Your task to perform on an android device: check android version Image 0: 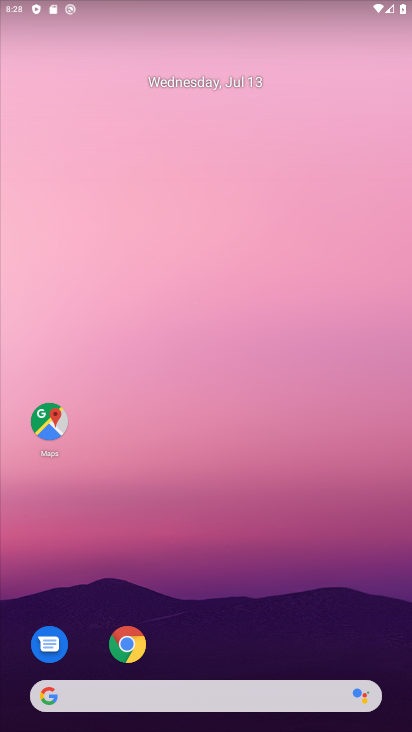
Step 0: drag from (241, 719) to (239, 195)
Your task to perform on an android device: check android version Image 1: 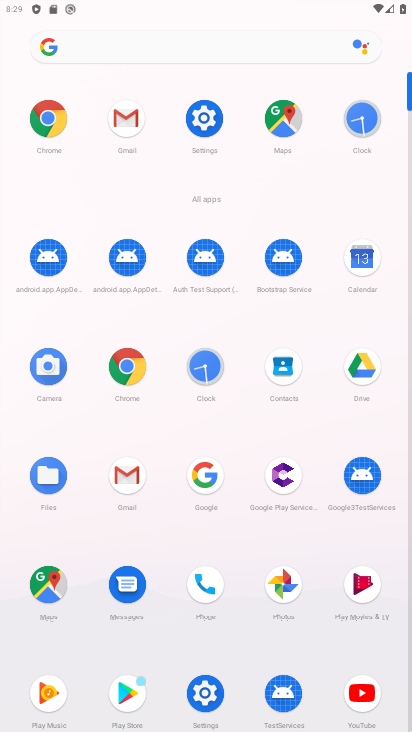
Step 1: click (213, 118)
Your task to perform on an android device: check android version Image 2: 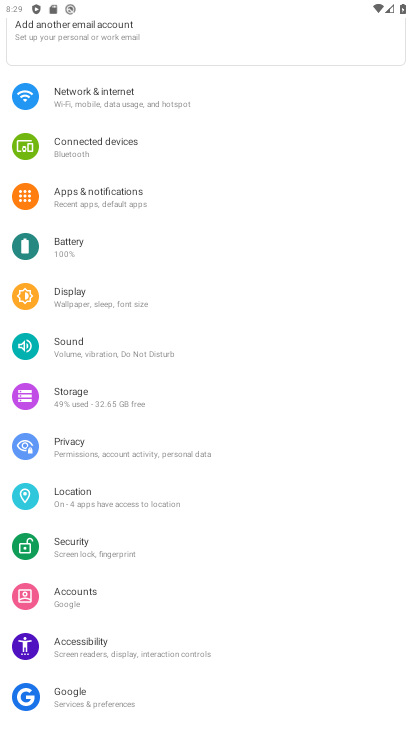
Step 2: drag from (151, 706) to (138, 289)
Your task to perform on an android device: check android version Image 3: 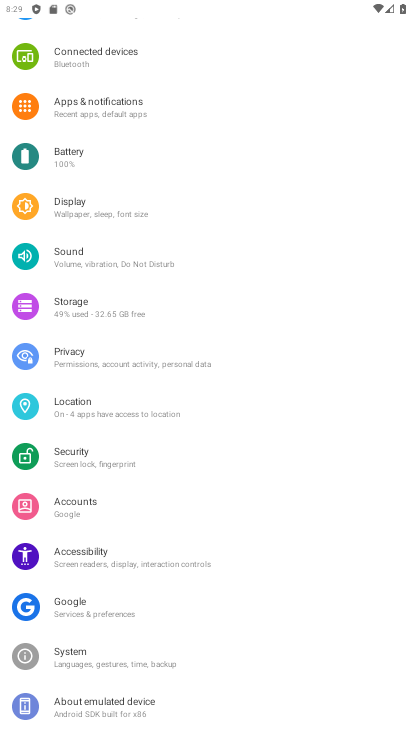
Step 3: click (102, 698)
Your task to perform on an android device: check android version Image 4: 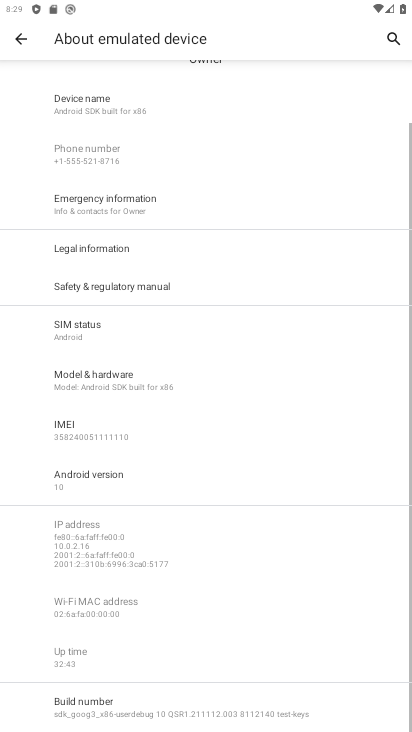
Step 4: click (156, 163)
Your task to perform on an android device: check android version Image 5: 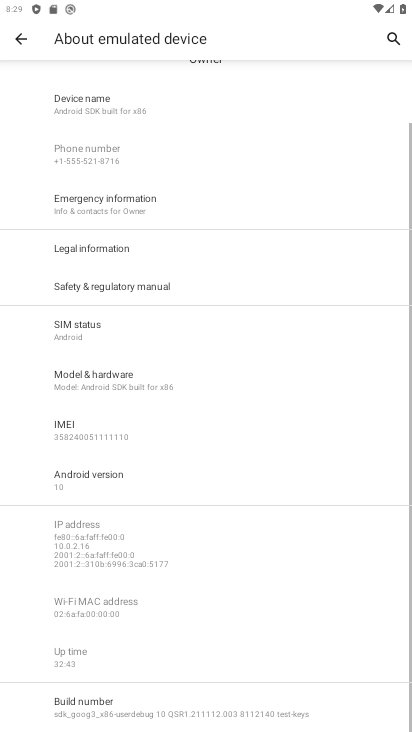
Step 5: drag from (155, 332) to (156, 600)
Your task to perform on an android device: check android version Image 6: 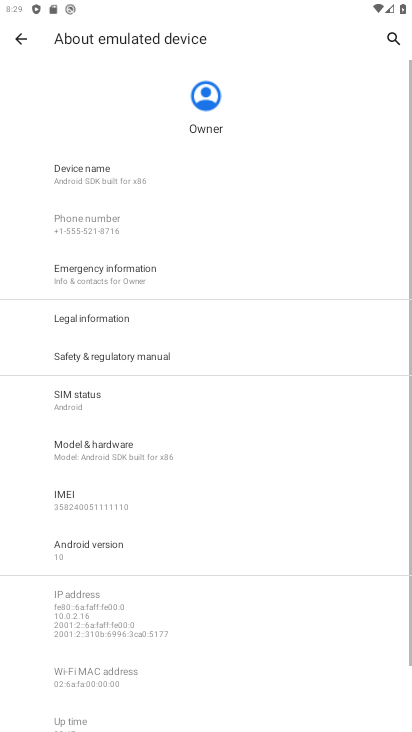
Step 6: drag from (98, 678) to (93, 290)
Your task to perform on an android device: check android version Image 7: 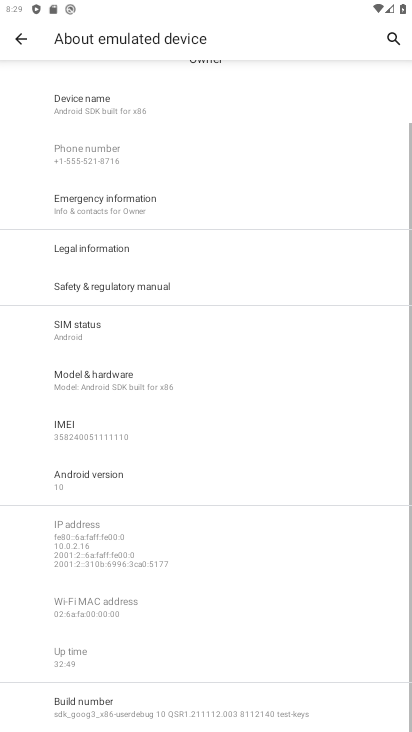
Step 7: drag from (97, 663) to (94, 447)
Your task to perform on an android device: check android version Image 8: 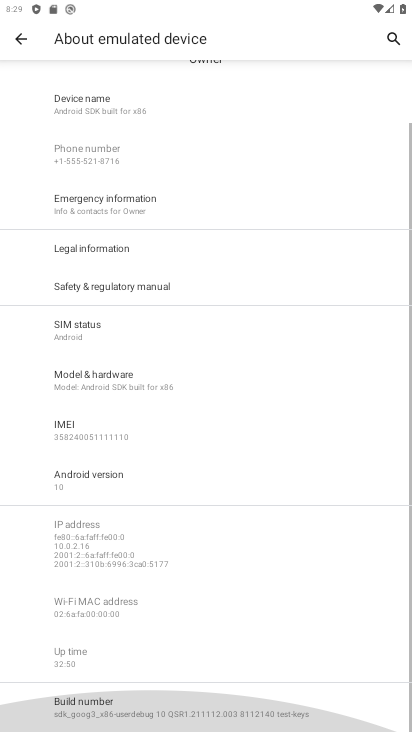
Step 8: click (101, 339)
Your task to perform on an android device: check android version Image 9: 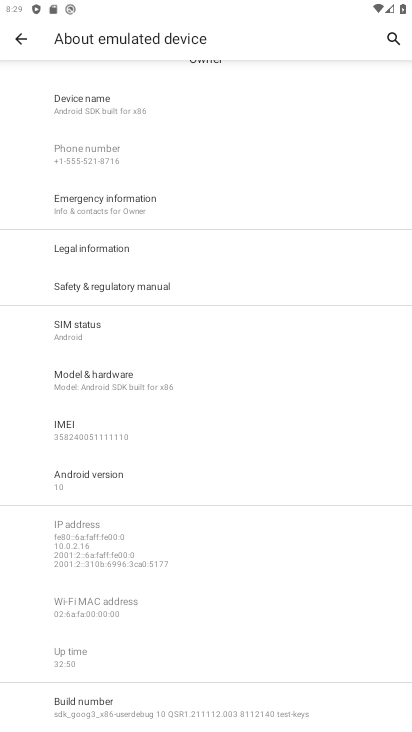
Step 9: click (78, 470)
Your task to perform on an android device: check android version Image 10: 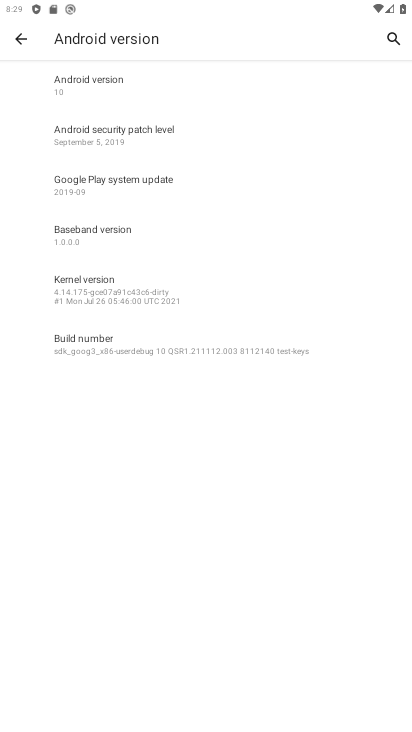
Step 10: click (78, 473)
Your task to perform on an android device: check android version Image 11: 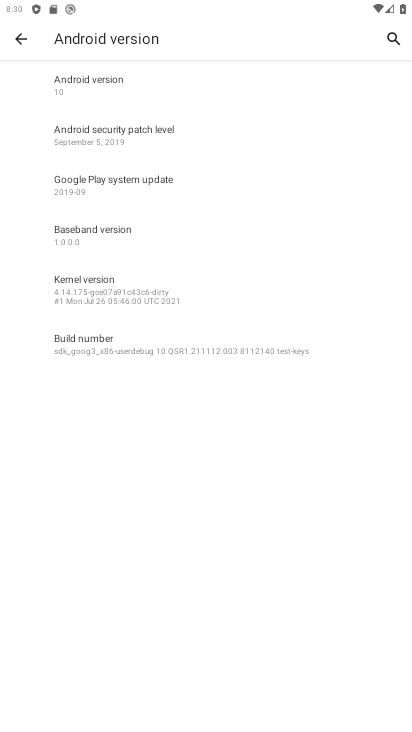
Step 11: task complete